Your task to perform on an android device: What's the weather today? Image 0: 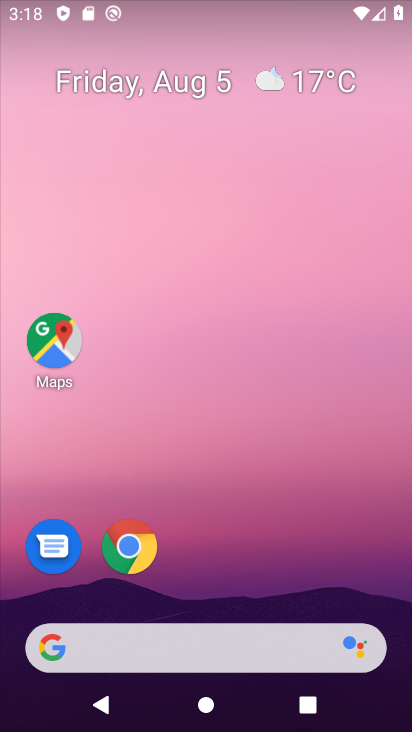
Step 0: press home button
Your task to perform on an android device: What's the weather today? Image 1: 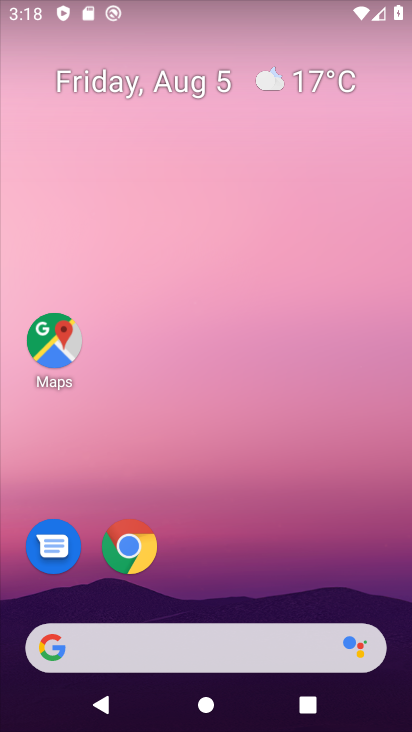
Step 1: click (229, 642)
Your task to perform on an android device: What's the weather today? Image 2: 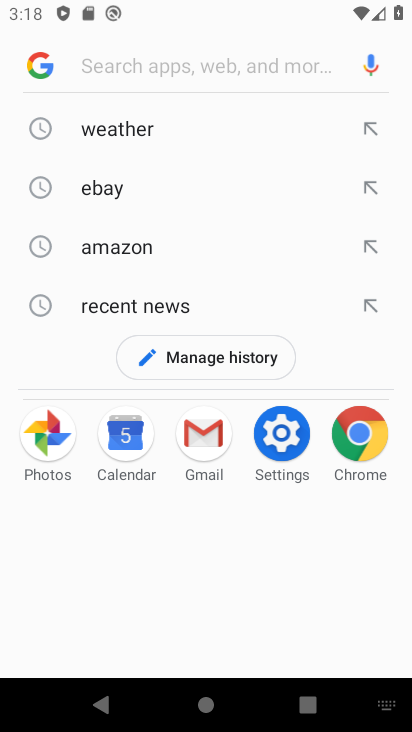
Step 2: click (143, 133)
Your task to perform on an android device: What's the weather today? Image 3: 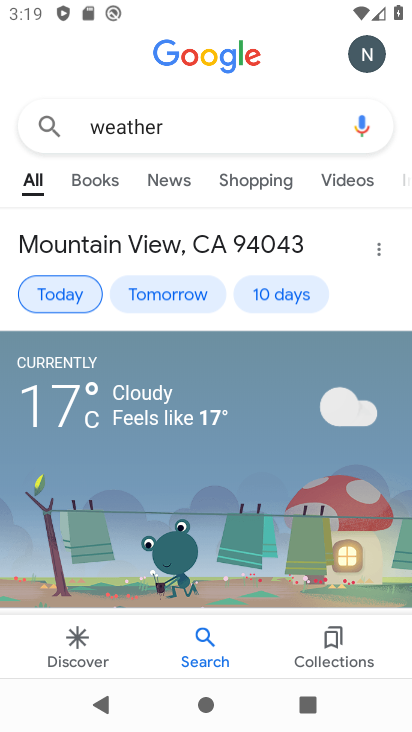
Step 3: task complete